Your task to perform on an android device: What's the weather? Image 0: 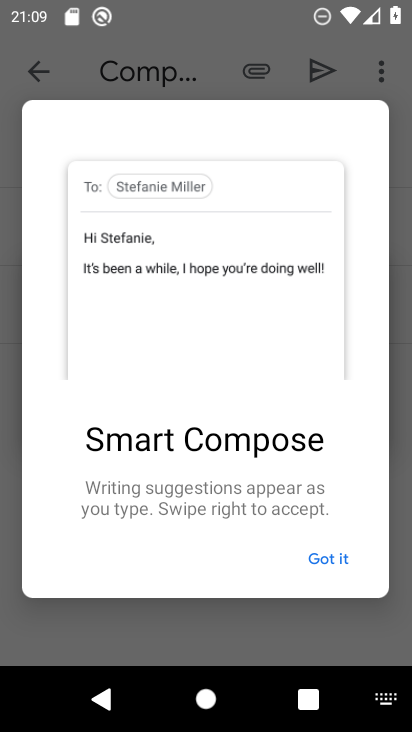
Step 0: press home button
Your task to perform on an android device: What's the weather? Image 1: 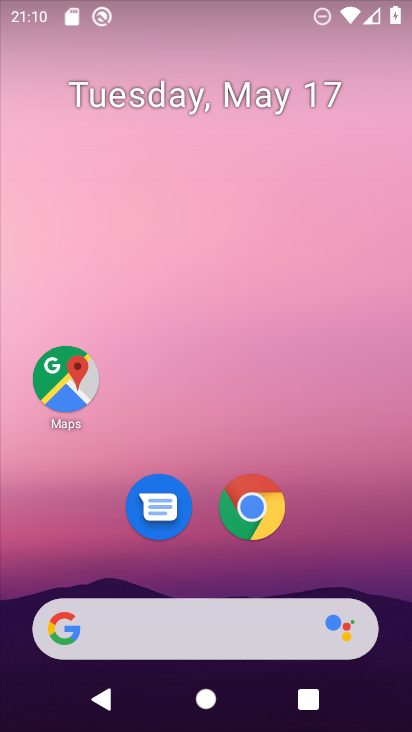
Step 1: click (232, 630)
Your task to perform on an android device: What's the weather? Image 2: 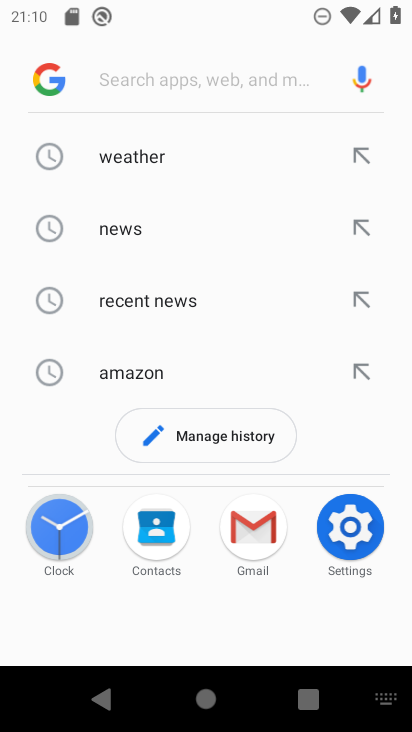
Step 2: click (145, 157)
Your task to perform on an android device: What's the weather? Image 3: 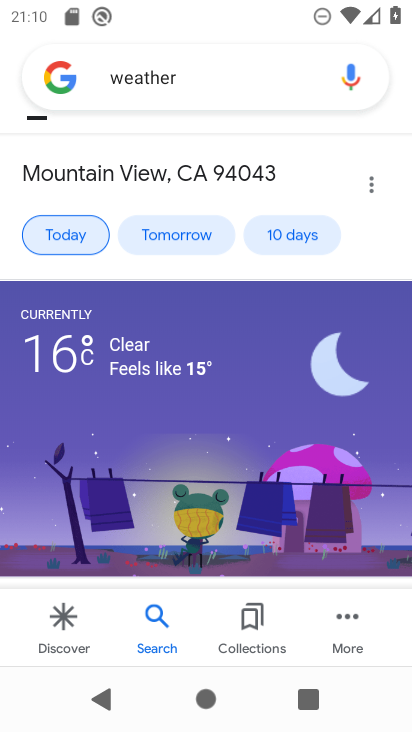
Step 3: task complete